Your task to perform on an android device: toggle improve location accuracy Image 0: 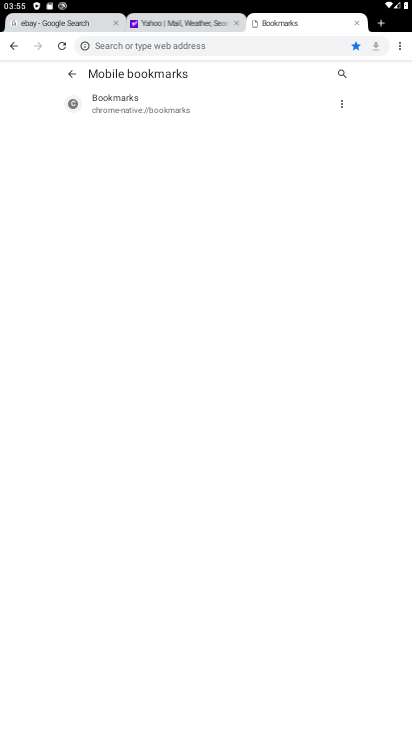
Step 0: press home button
Your task to perform on an android device: toggle improve location accuracy Image 1: 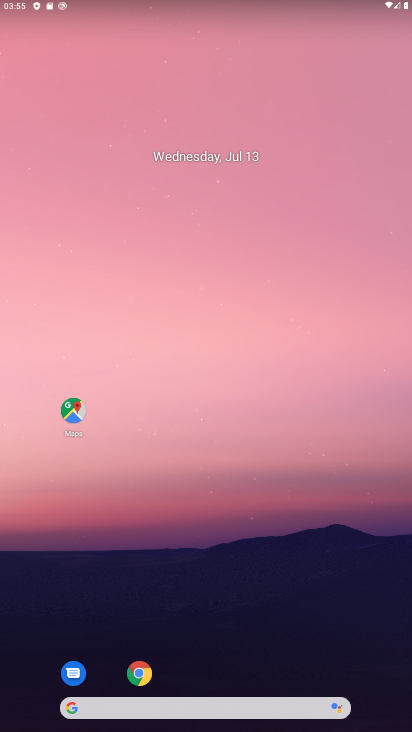
Step 1: drag from (285, 636) to (358, 144)
Your task to perform on an android device: toggle improve location accuracy Image 2: 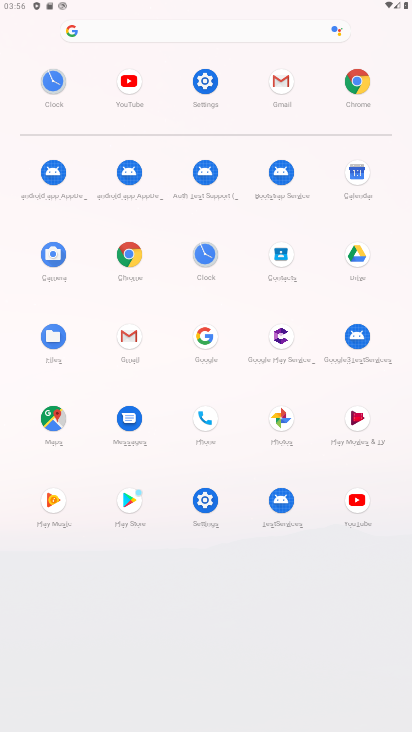
Step 2: click (207, 505)
Your task to perform on an android device: toggle improve location accuracy Image 3: 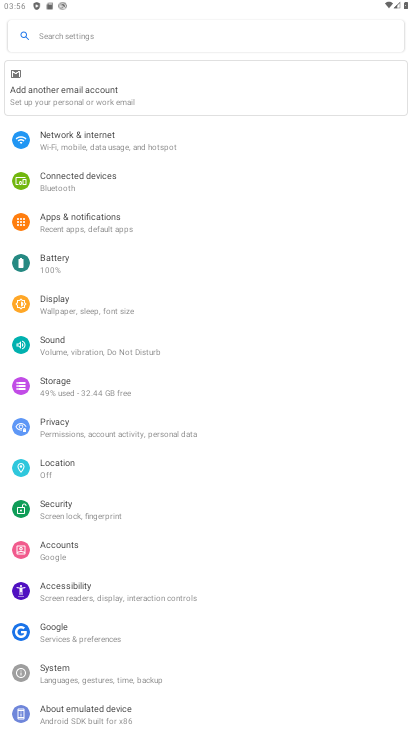
Step 3: click (63, 459)
Your task to perform on an android device: toggle improve location accuracy Image 4: 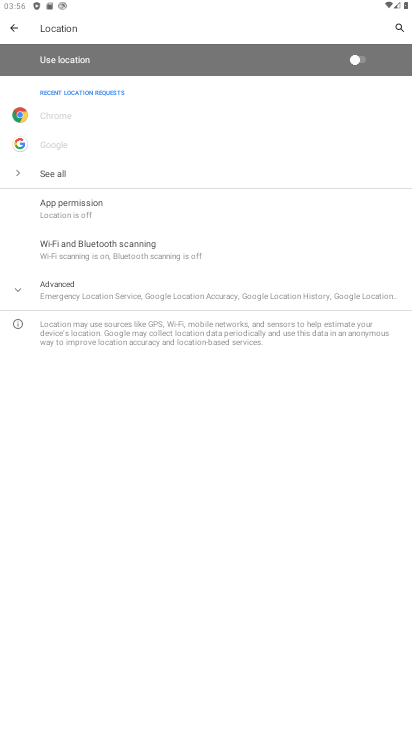
Step 4: click (80, 289)
Your task to perform on an android device: toggle improve location accuracy Image 5: 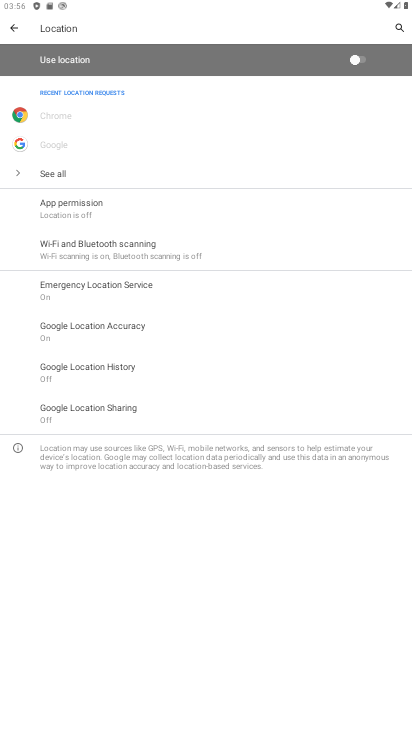
Step 5: click (102, 317)
Your task to perform on an android device: toggle improve location accuracy Image 6: 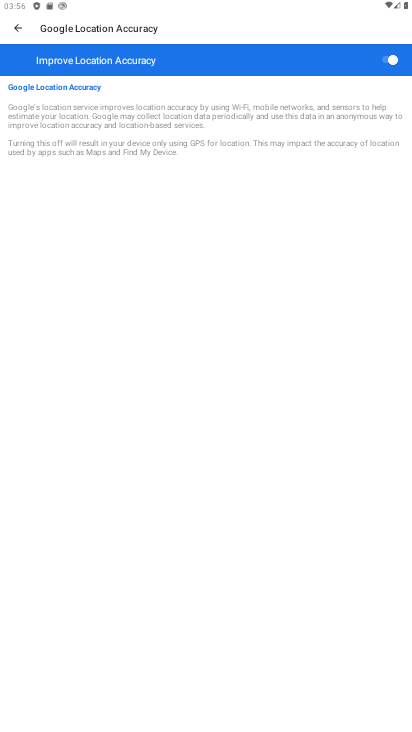
Step 6: click (382, 55)
Your task to perform on an android device: toggle improve location accuracy Image 7: 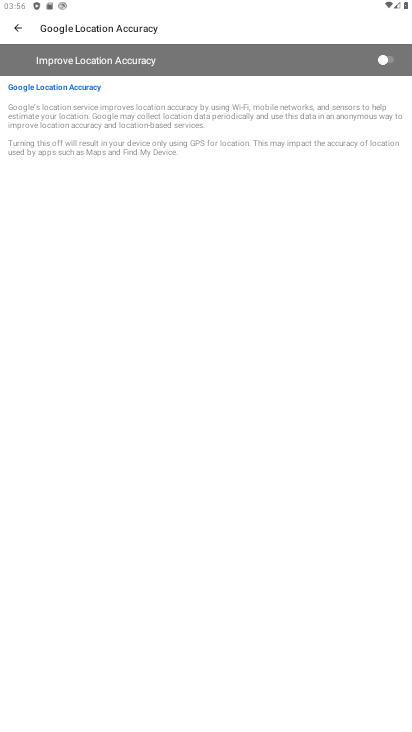
Step 7: task complete